Your task to perform on an android device: Check the news Image 0: 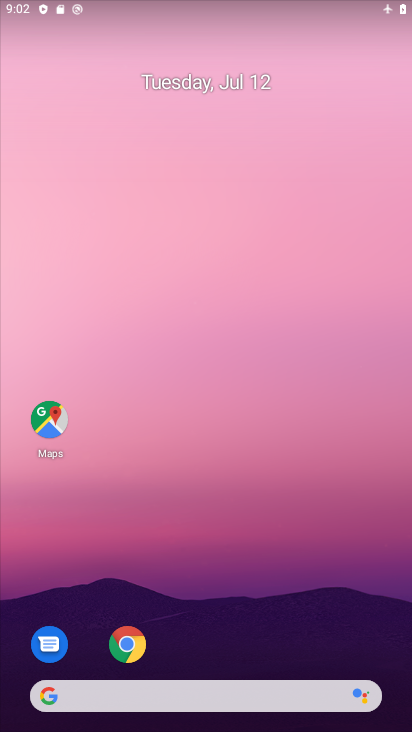
Step 0: drag from (209, 635) to (214, 174)
Your task to perform on an android device: Check the news Image 1: 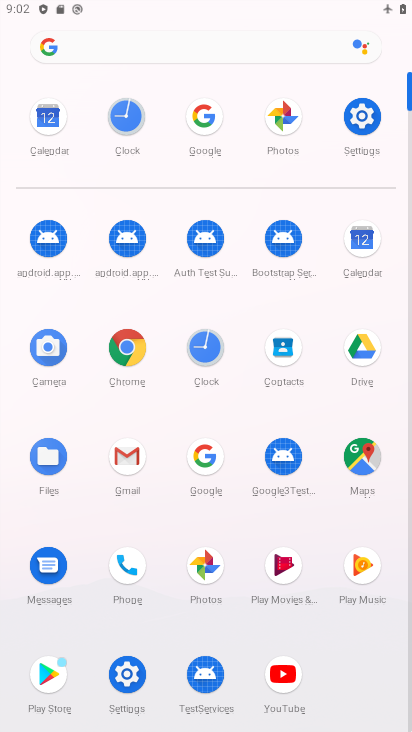
Step 1: click (207, 134)
Your task to perform on an android device: Check the news Image 2: 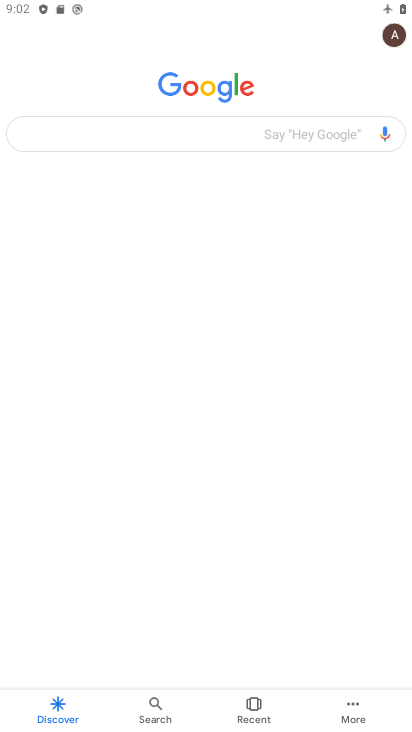
Step 2: click (199, 129)
Your task to perform on an android device: Check the news Image 3: 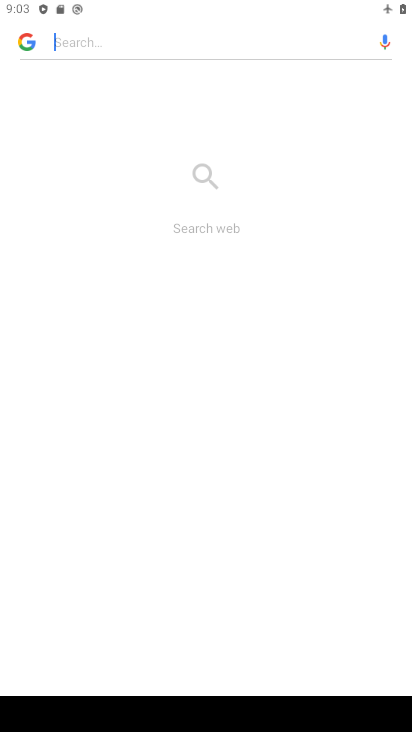
Step 3: type "news"
Your task to perform on an android device: Check the news Image 4: 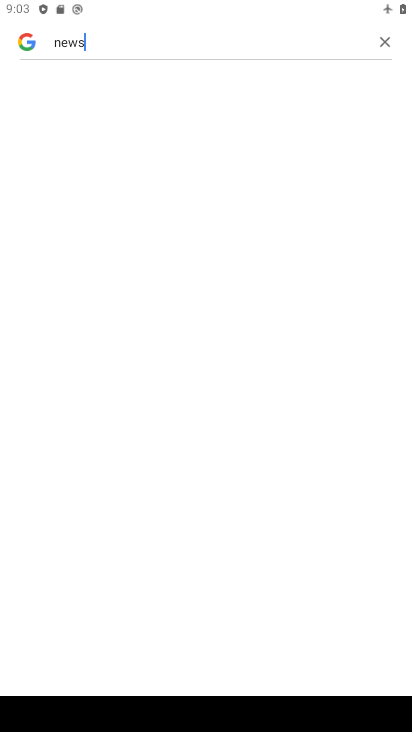
Step 4: task complete